Your task to perform on an android device: choose inbox layout in the gmail app Image 0: 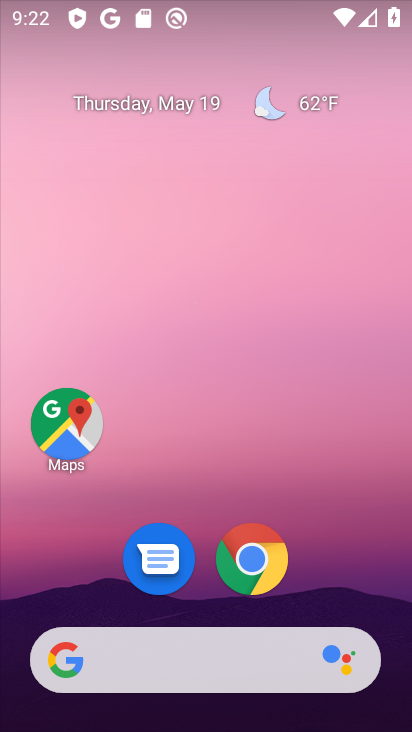
Step 0: drag from (332, 544) to (215, 128)
Your task to perform on an android device: choose inbox layout in the gmail app Image 1: 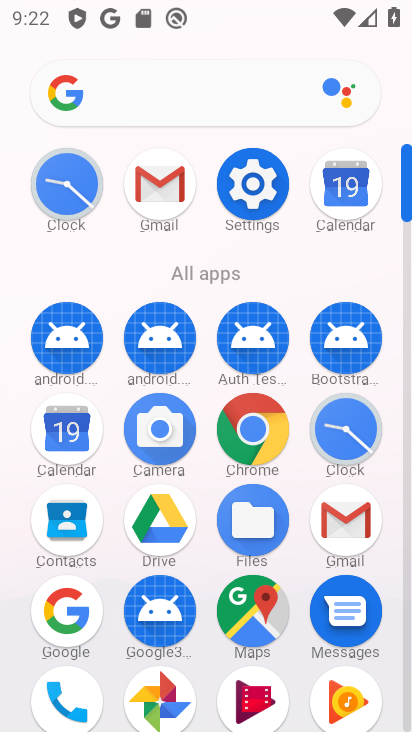
Step 1: click (169, 191)
Your task to perform on an android device: choose inbox layout in the gmail app Image 2: 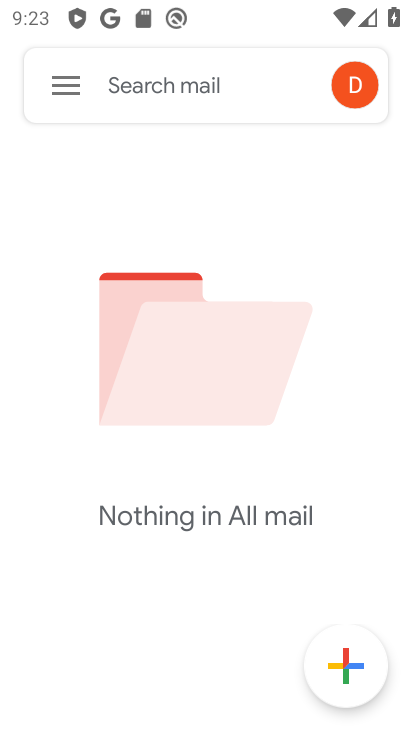
Step 2: click (43, 80)
Your task to perform on an android device: choose inbox layout in the gmail app Image 3: 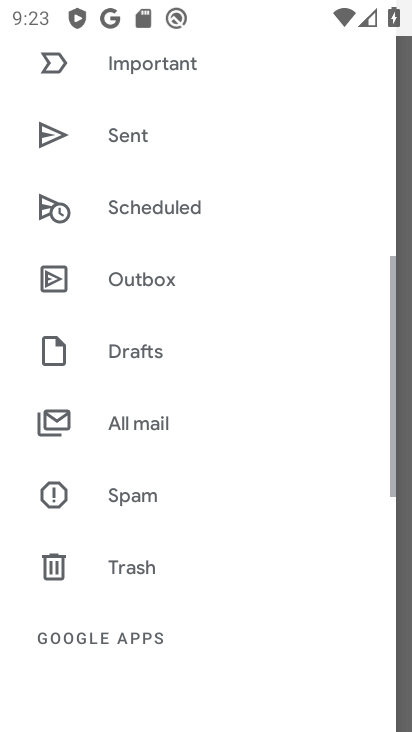
Step 3: drag from (198, 614) to (165, 212)
Your task to perform on an android device: choose inbox layout in the gmail app Image 4: 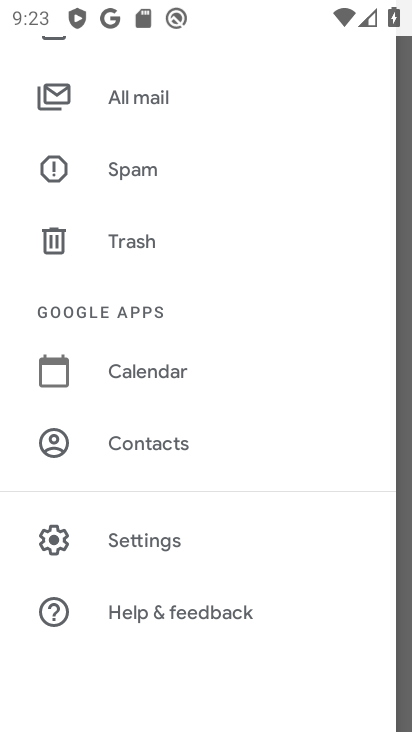
Step 4: click (161, 518)
Your task to perform on an android device: choose inbox layout in the gmail app Image 5: 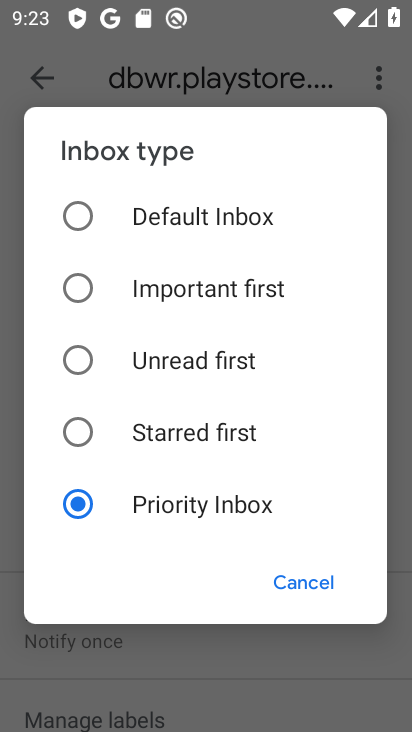
Step 5: task complete